Your task to perform on an android device: What's the weather today? Image 0: 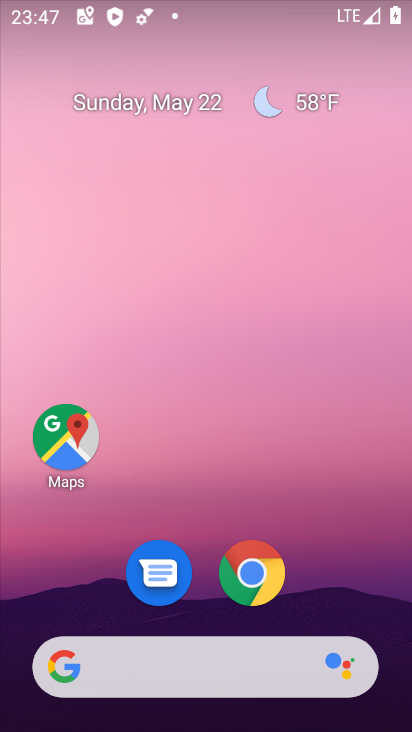
Step 0: drag from (196, 615) to (268, 0)
Your task to perform on an android device: What's the weather today? Image 1: 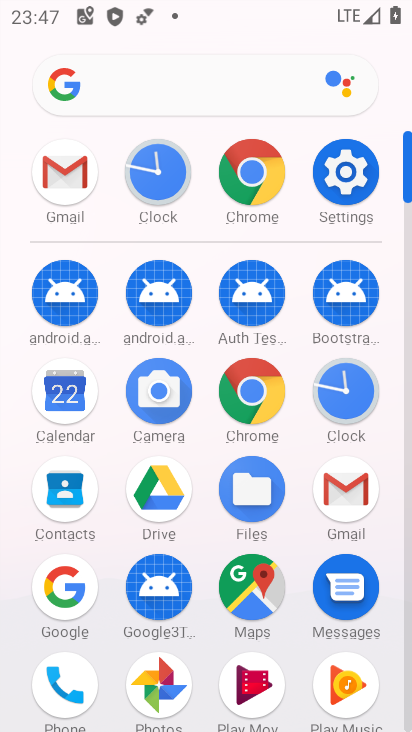
Step 1: press home button
Your task to perform on an android device: What's the weather today? Image 2: 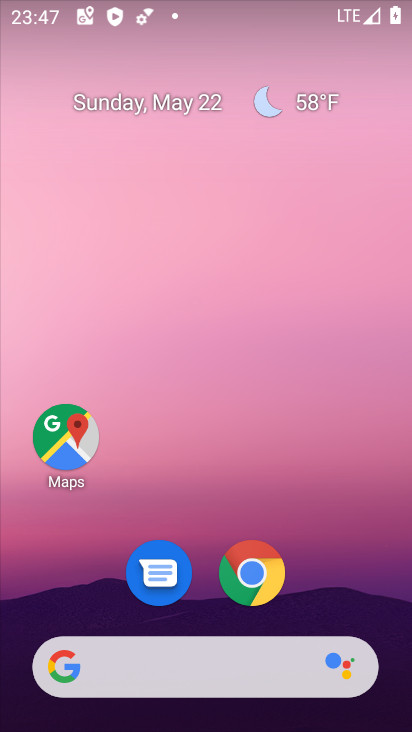
Step 2: click (289, 109)
Your task to perform on an android device: What's the weather today? Image 3: 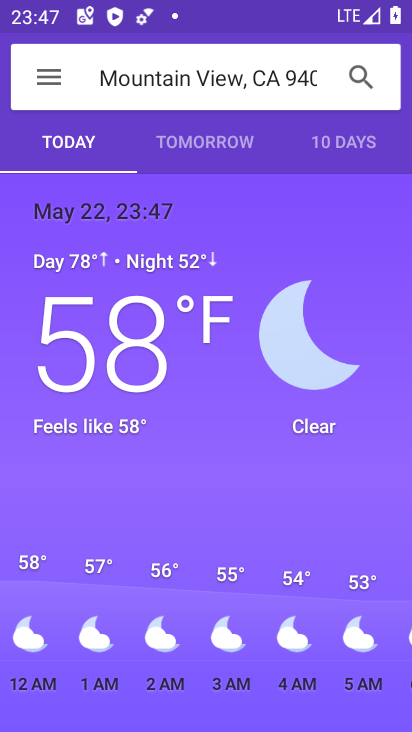
Step 3: task complete